Your task to perform on an android device: Open sound settings Image 0: 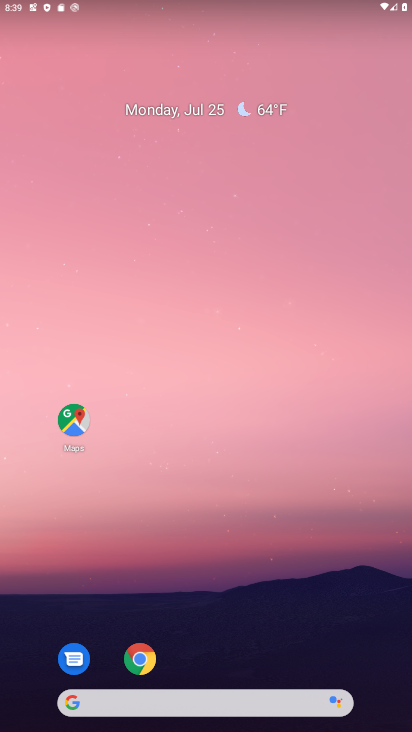
Step 0: press home button
Your task to perform on an android device: Open sound settings Image 1: 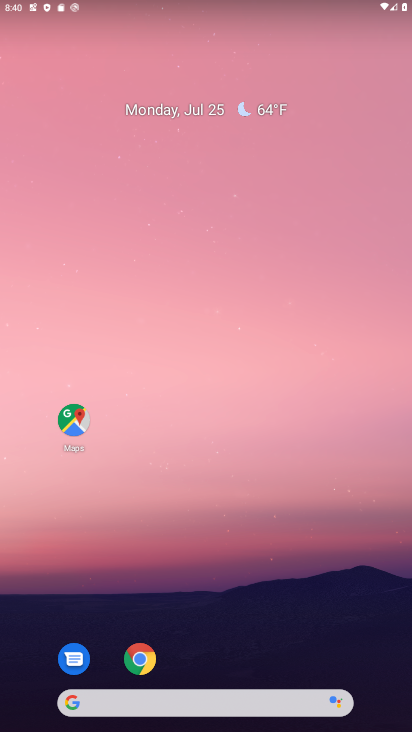
Step 1: drag from (370, 618) to (369, 125)
Your task to perform on an android device: Open sound settings Image 2: 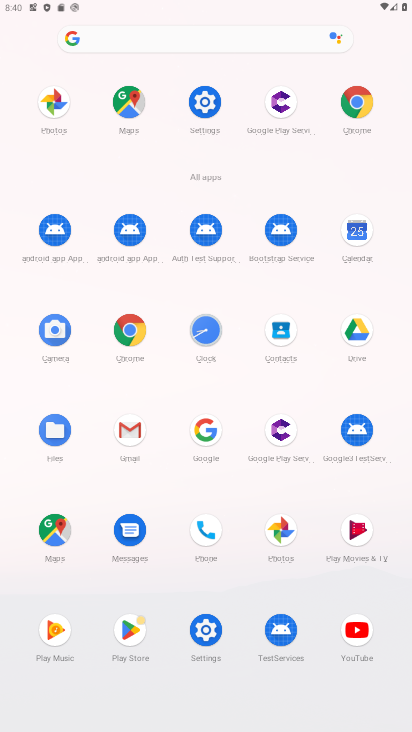
Step 2: click (206, 97)
Your task to perform on an android device: Open sound settings Image 3: 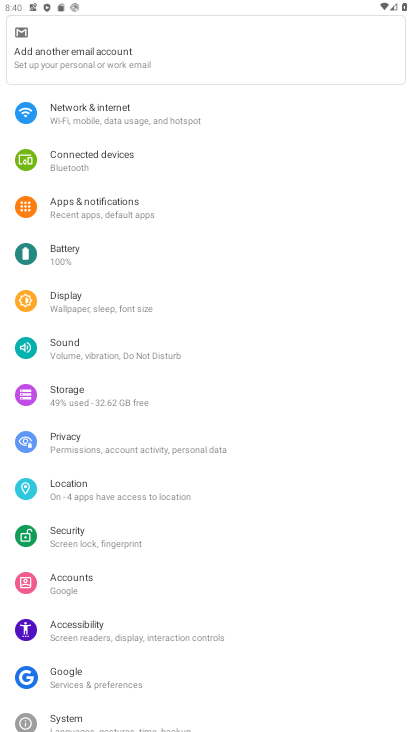
Step 3: drag from (311, 202) to (314, 284)
Your task to perform on an android device: Open sound settings Image 4: 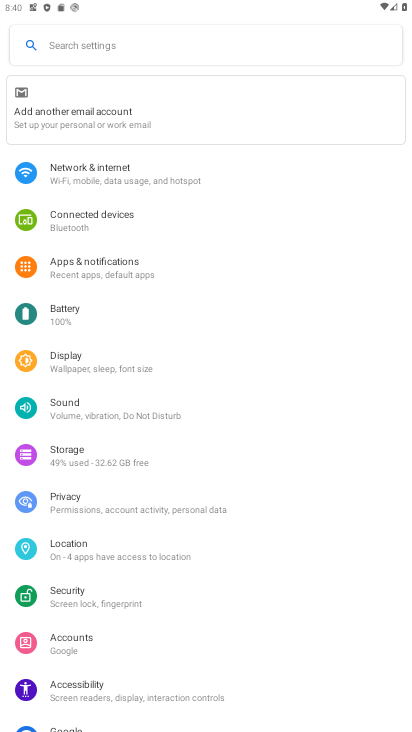
Step 4: drag from (332, 199) to (335, 351)
Your task to perform on an android device: Open sound settings Image 5: 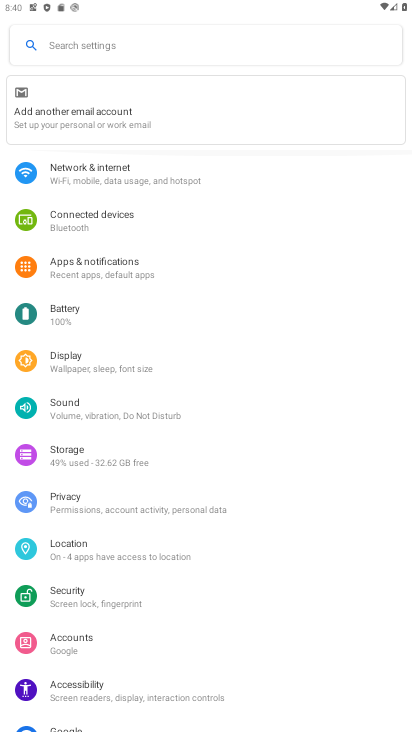
Step 5: drag from (322, 457) to (331, 383)
Your task to perform on an android device: Open sound settings Image 6: 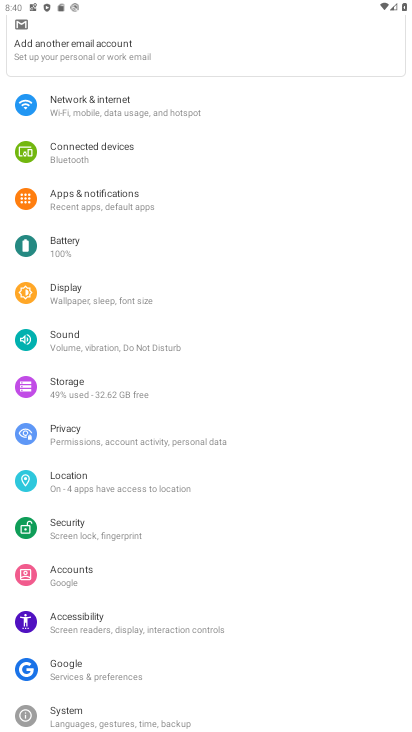
Step 6: drag from (317, 522) to (315, 365)
Your task to perform on an android device: Open sound settings Image 7: 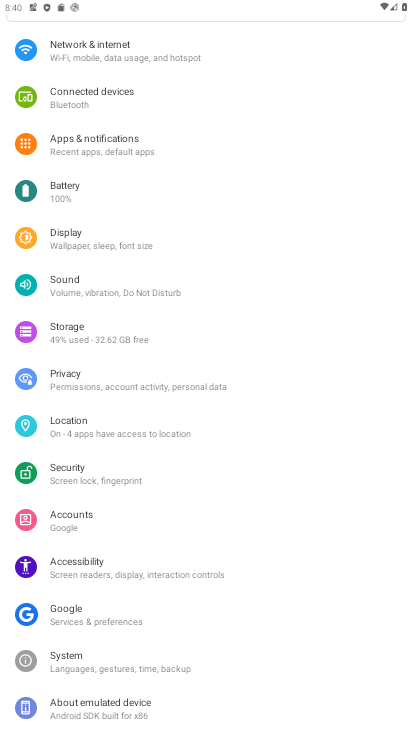
Step 7: click (184, 278)
Your task to perform on an android device: Open sound settings Image 8: 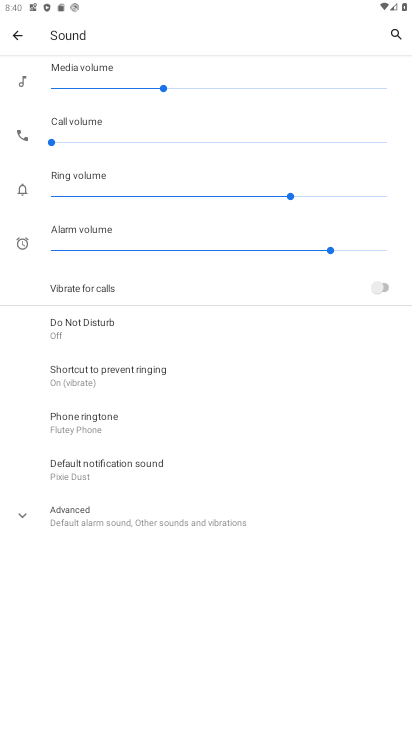
Step 8: click (231, 518)
Your task to perform on an android device: Open sound settings Image 9: 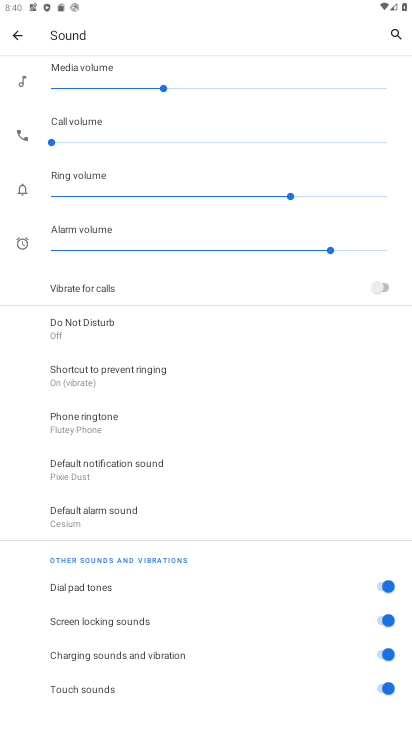
Step 9: task complete